Your task to perform on an android device: stop showing notifications on the lock screen Image 0: 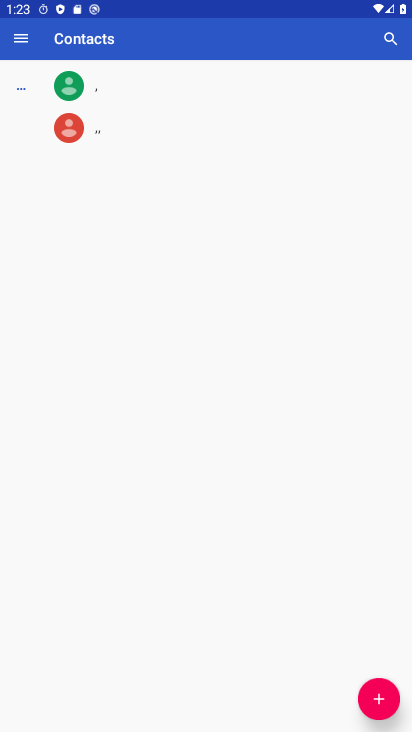
Step 0: press home button
Your task to perform on an android device: stop showing notifications on the lock screen Image 1: 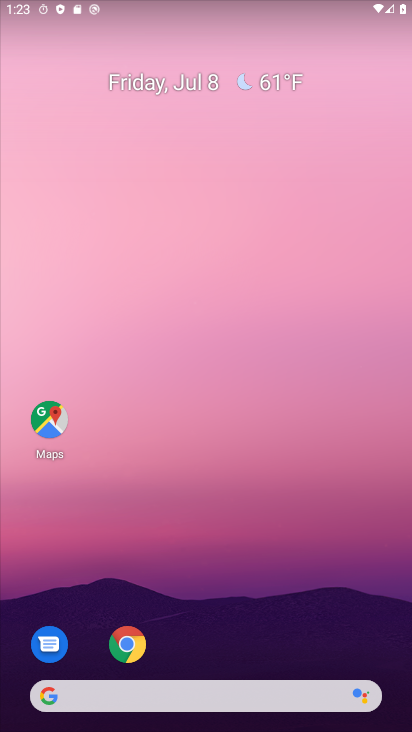
Step 1: drag from (175, 295) to (175, 168)
Your task to perform on an android device: stop showing notifications on the lock screen Image 2: 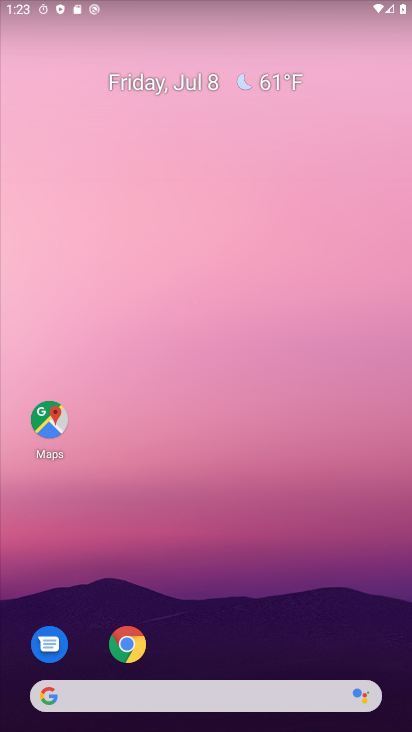
Step 2: drag from (200, 533) to (200, 171)
Your task to perform on an android device: stop showing notifications on the lock screen Image 3: 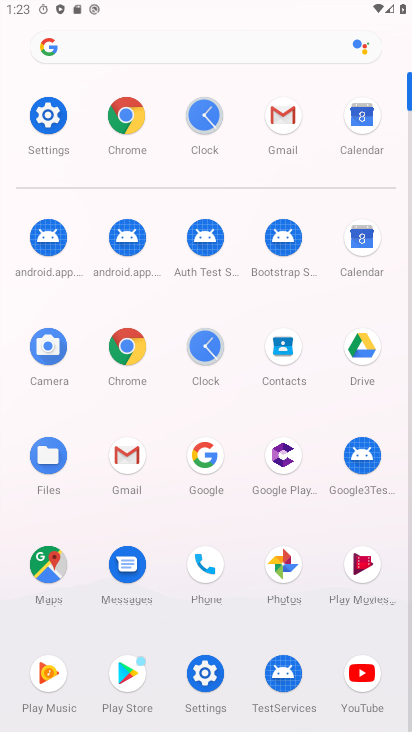
Step 3: click (50, 120)
Your task to perform on an android device: stop showing notifications on the lock screen Image 4: 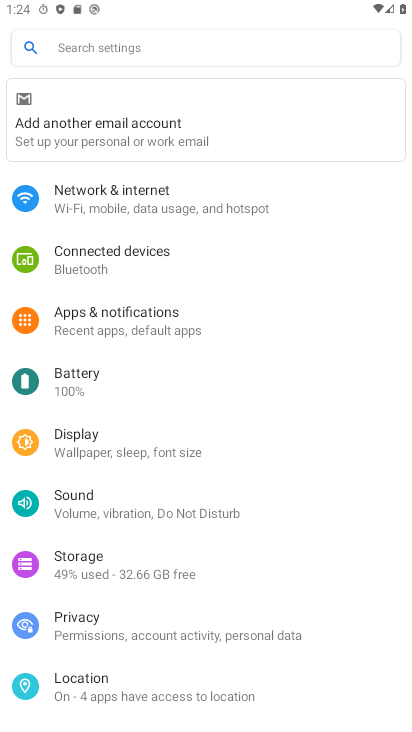
Step 4: click (103, 323)
Your task to perform on an android device: stop showing notifications on the lock screen Image 5: 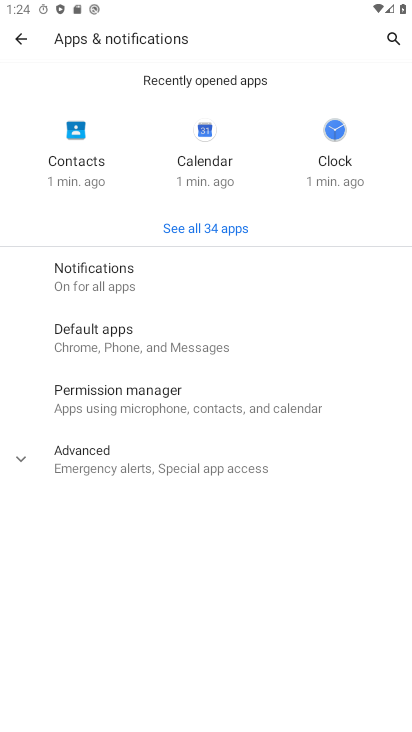
Step 5: click (93, 274)
Your task to perform on an android device: stop showing notifications on the lock screen Image 6: 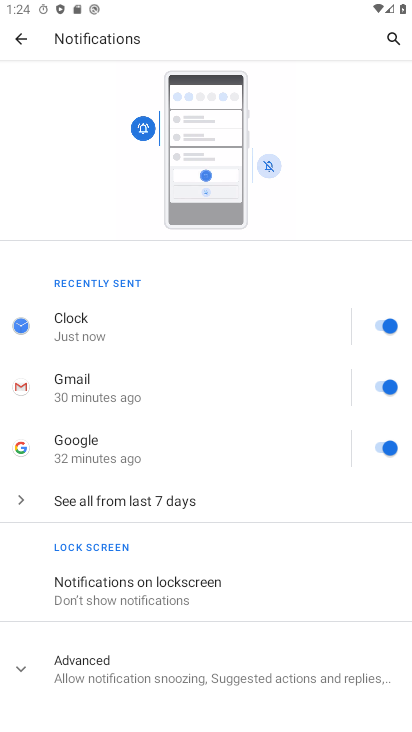
Step 6: click (104, 598)
Your task to perform on an android device: stop showing notifications on the lock screen Image 7: 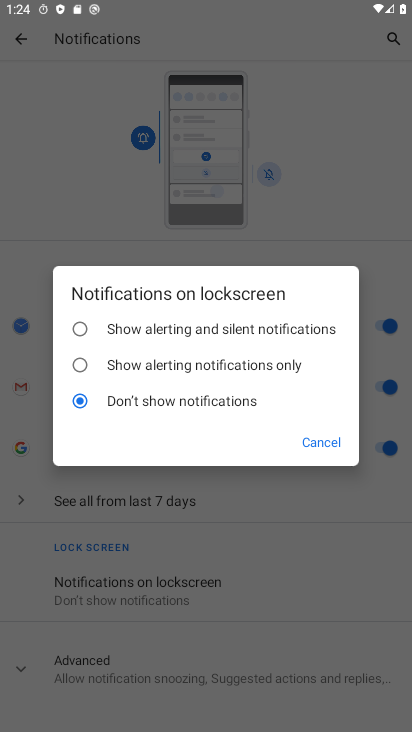
Step 7: task complete